Your task to perform on an android device: toggle location history Image 0: 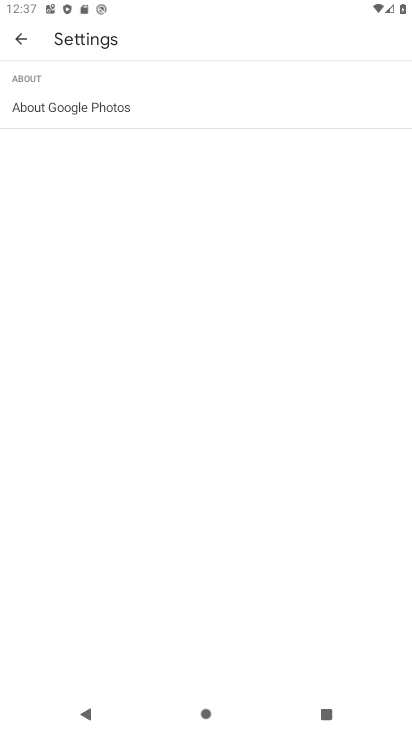
Step 0: press back button
Your task to perform on an android device: toggle location history Image 1: 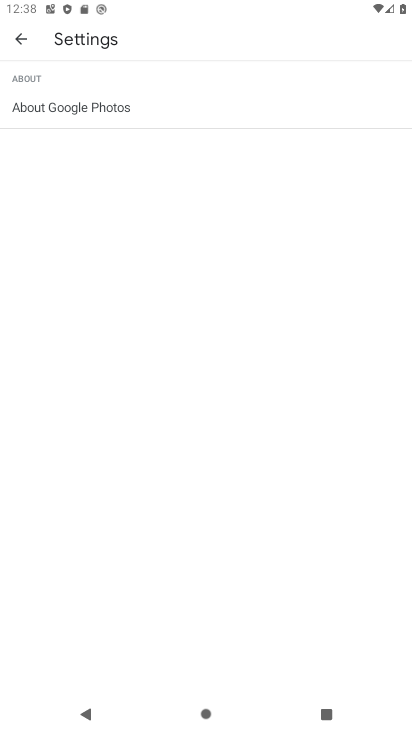
Step 1: click (18, 28)
Your task to perform on an android device: toggle location history Image 2: 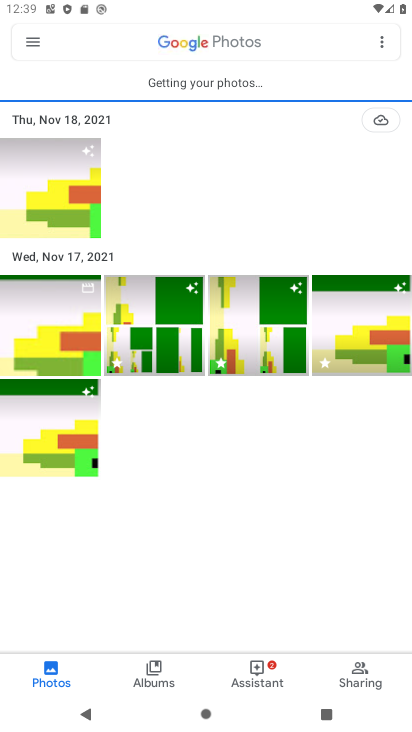
Step 2: press back button
Your task to perform on an android device: toggle location history Image 3: 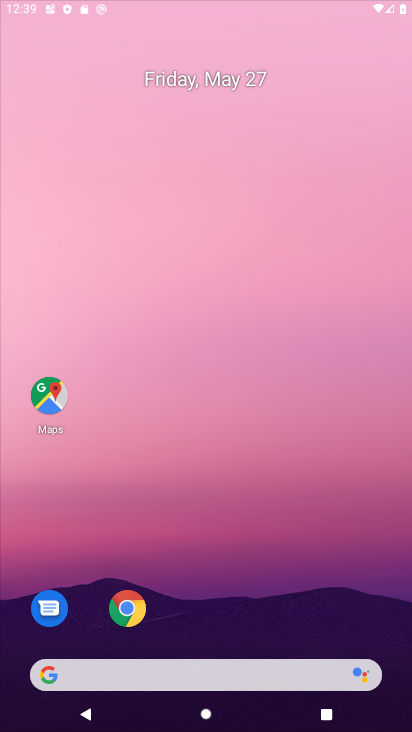
Step 3: drag from (195, 433) to (210, 87)
Your task to perform on an android device: toggle location history Image 4: 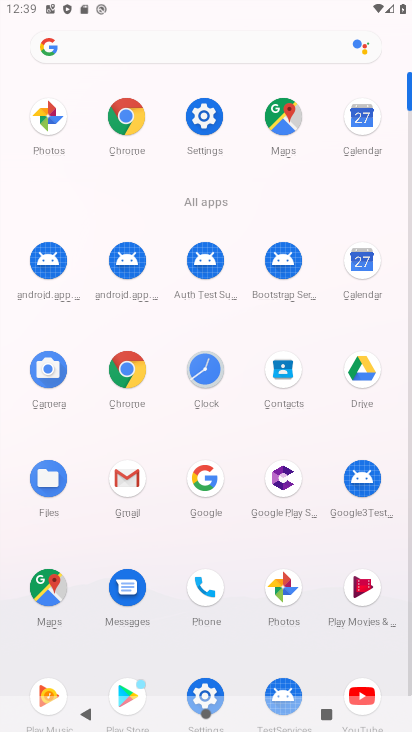
Step 4: click (198, 98)
Your task to perform on an android device: toggle location history Image 5: 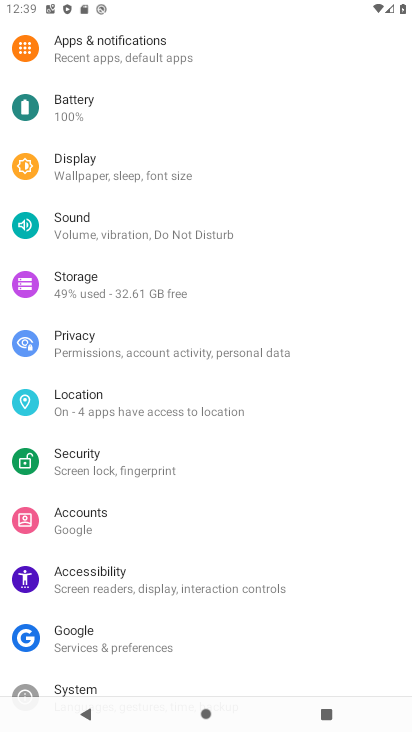
Step 5: click (104, 409)
Your task to perform on an android device: toggle location history Image 6: 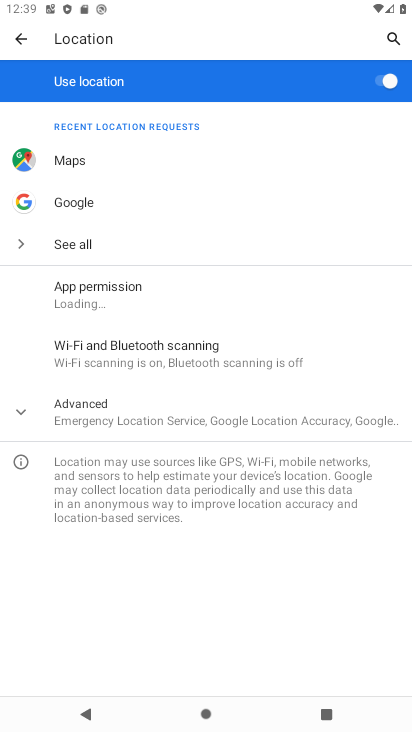
Step 6: click (110, 417)
Your task to perform on an android device: toggle location history Image 7: 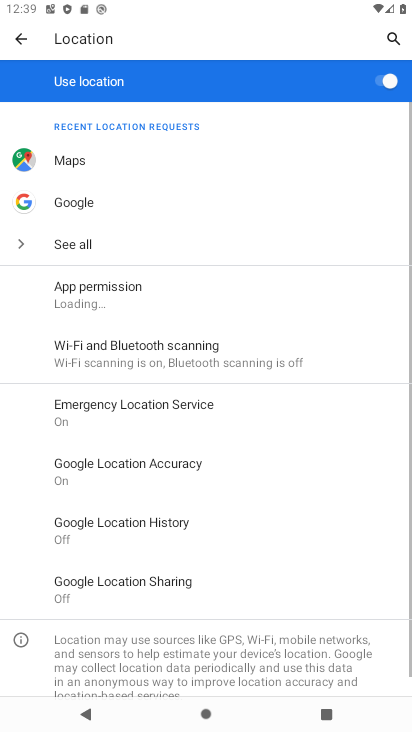
Step 7: click (151, 520)
Your task to perform on an android device: toggle location history Image 8: 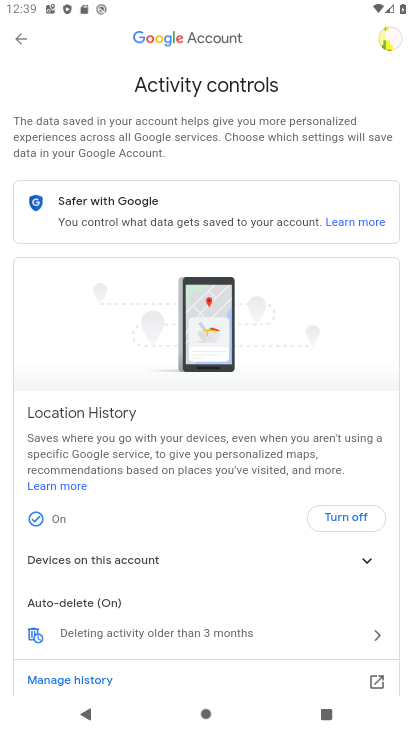
Step 8: click (335, 513)
Your task to perform on an android device: toggle location history Image 9: 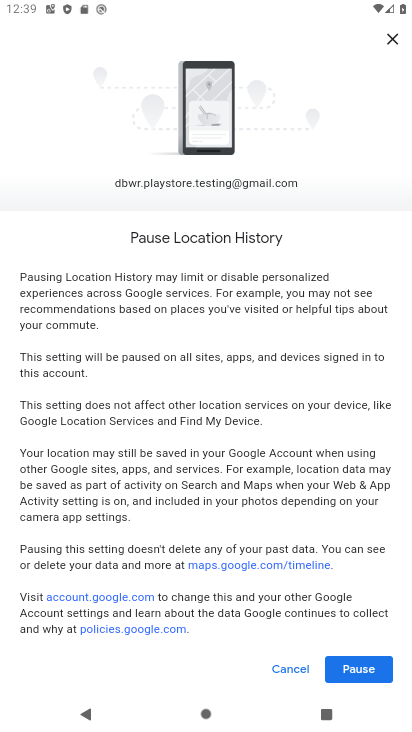
Step 9: click (368, 675)
Your task to perform on an android device: toggle location history Image 10: 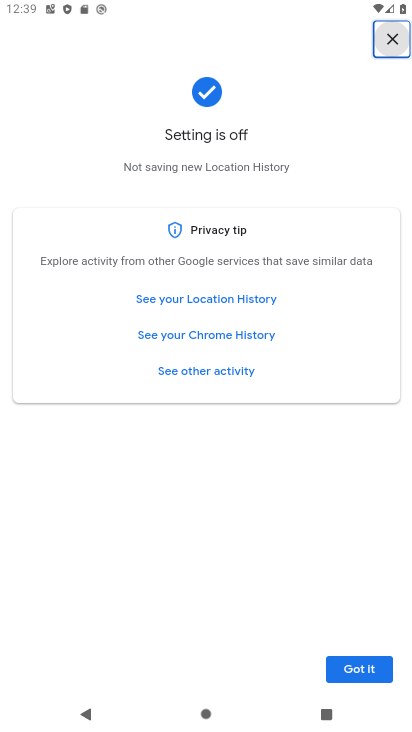
Step 10: click (350, 670)
Your task to perform on an android device: toggle location history Image 11: 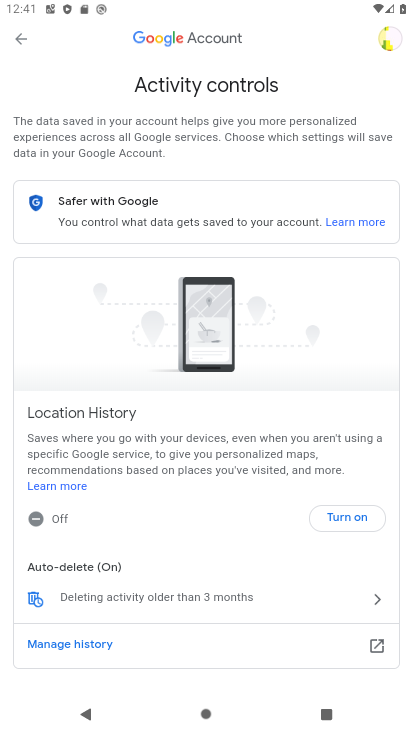
Step 11: drag from (222, 553) to (231, 131)
Your task to perform on an android device: toggle location history Image 12: 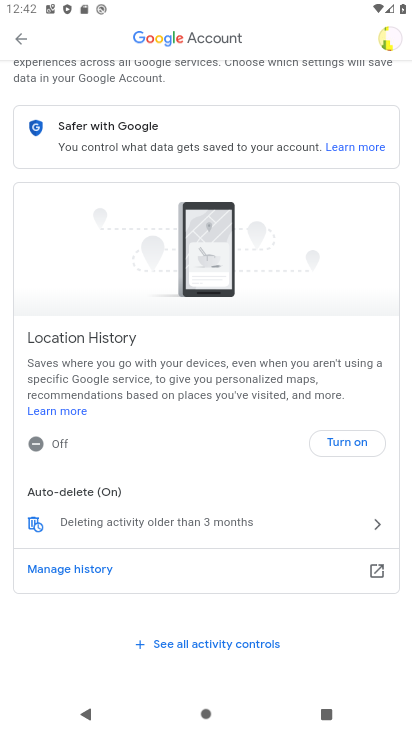
Step 12: click (342, 438)
Your task to perform on an android device: toggle location history Image 13: 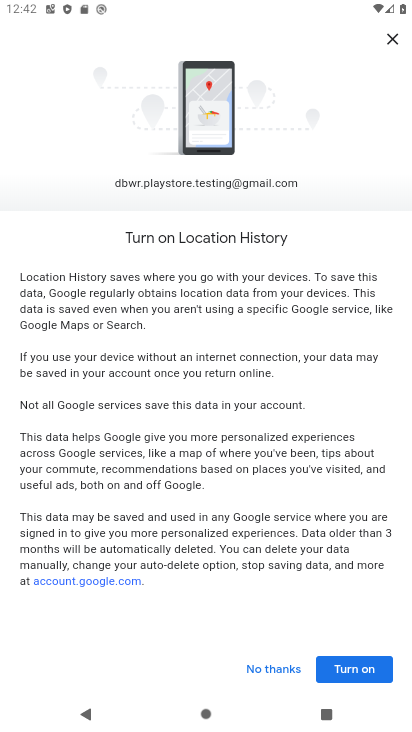
Step 13: click (339, 668)
Your task to perform on an android device: toggle location history Image 14: 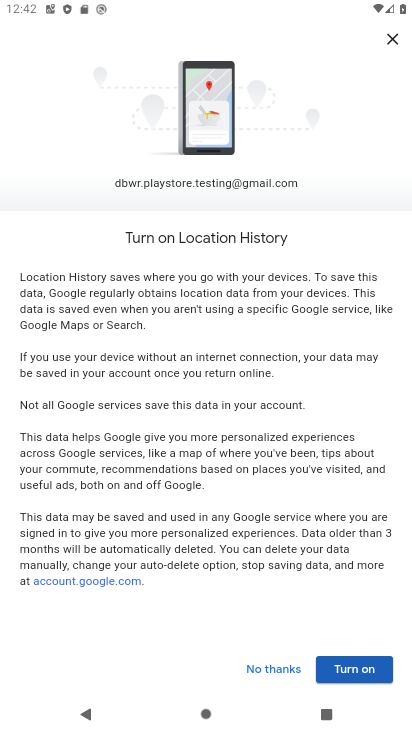
Step 14: drag from (276, 515) to (299, 101)
Your task to perform on an android device: toggle location history Image 15: 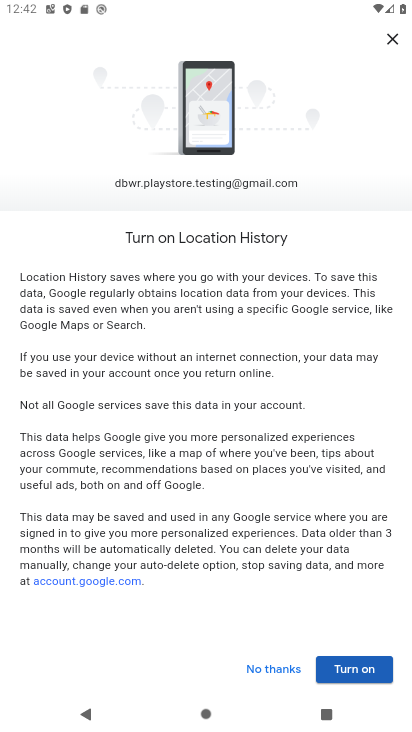
Step 15: drag from (224, 527) to (288, 33)
Your task to perform on an android device: toggle location history Image 16: 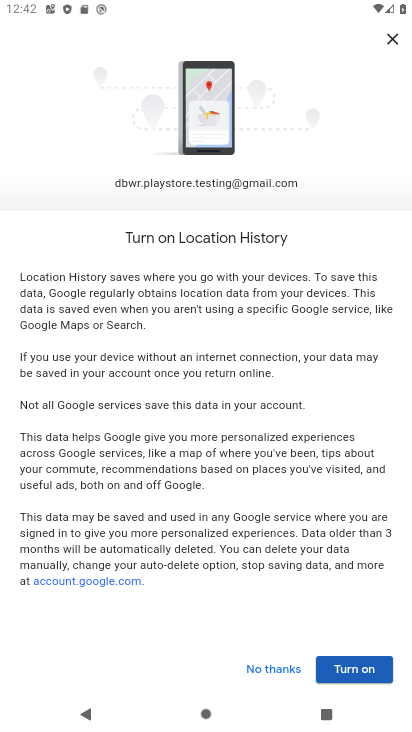
Step 16: click (362, 684)
Your task to perform on an android device: toggle location history Image 17: 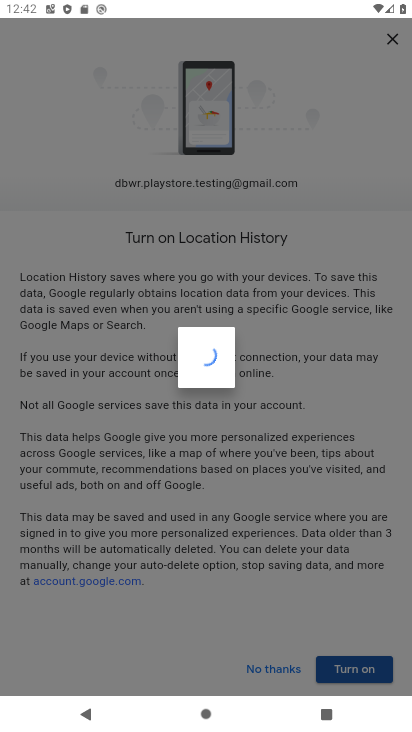
Step 17: click (362, 672)
Your task to perform on an android device: toggle location history Image 18: 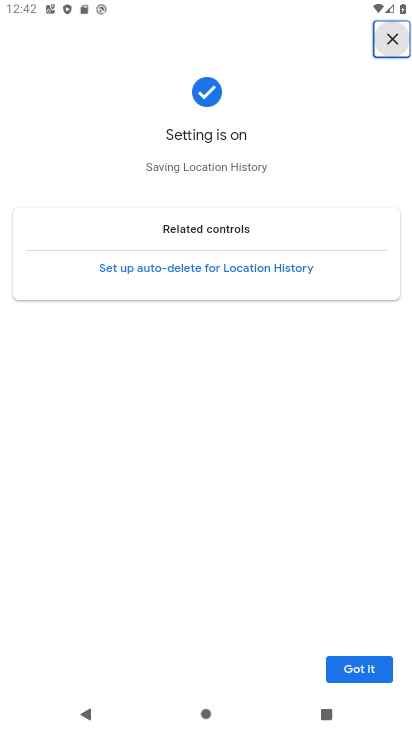
Step 18: task complete